Your task to perform on an android device: set default search engine in the chrome app Image 0: 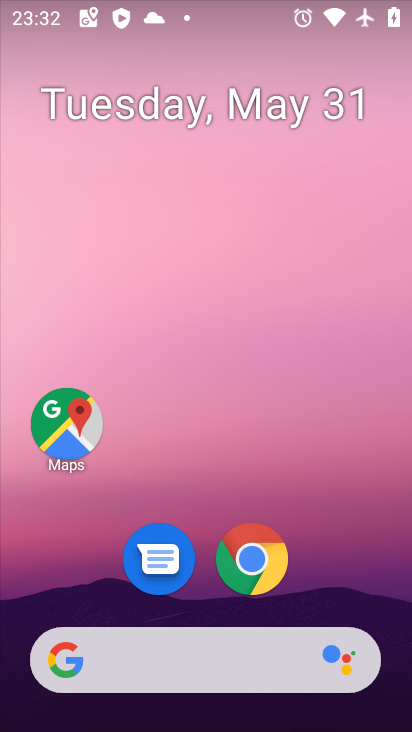
Step 0: click (248, 559)
Your task to perform on an android device: set default search engine in the chrome app Image 1: 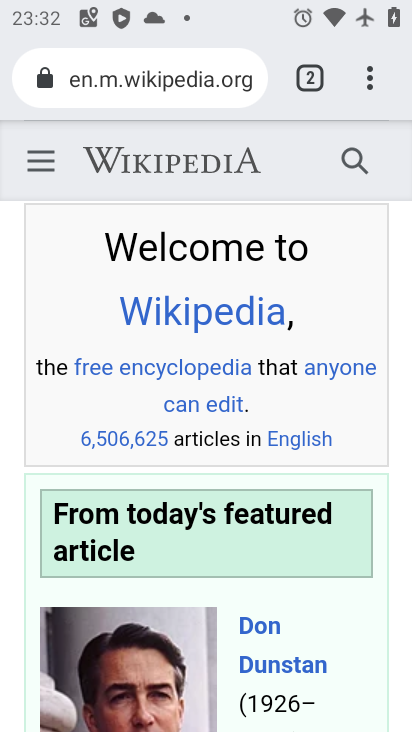
Step 1: click (358, 81)
Your task to perform on an android device: set default search engine in the chrome app Image 2: 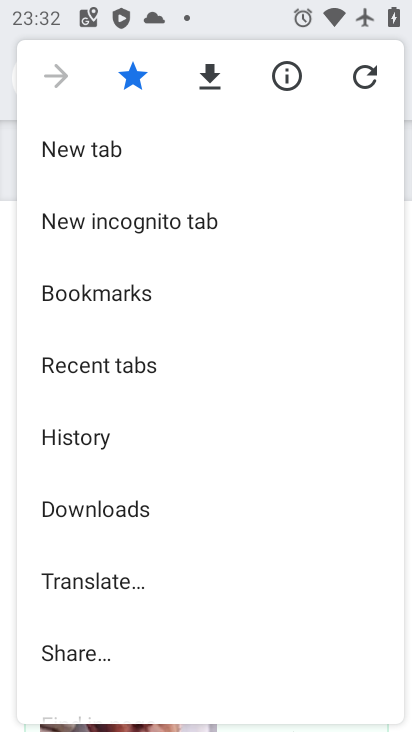
Step 2: drag from (137, 572) to (98, 259)
Your task to perform on an android device: set default search engine in the chrome app Image 3: 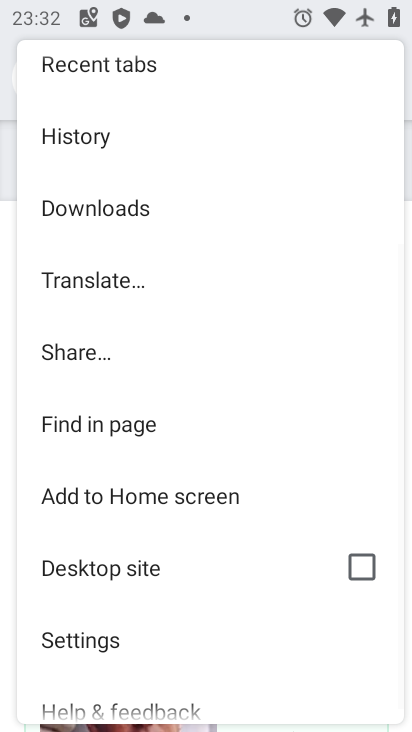
Step 3: click (80, 636)
Your task to perform on an android device: set default search engine in the chrome app Image 4: 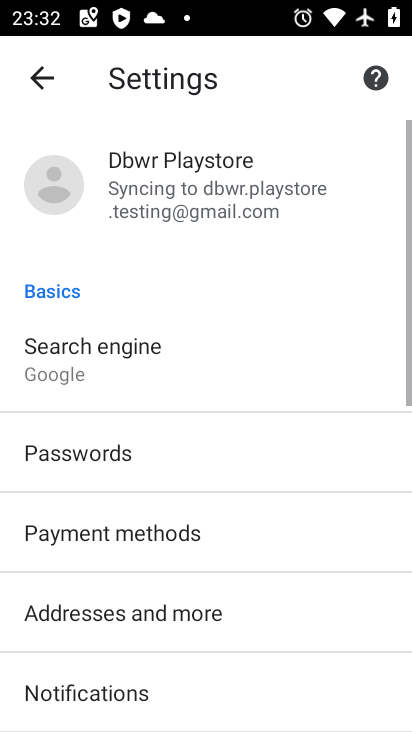
Step 4: click (120, 376)
Your task to perform on an android device: set default search engine in the chrome app Image 5: 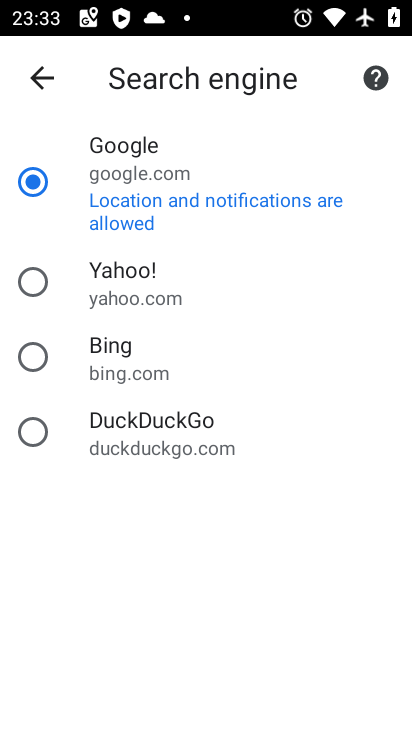
Step 5: task complete